Your task to perform on an android device: Search for pizza restaurants on Maps Image 0: 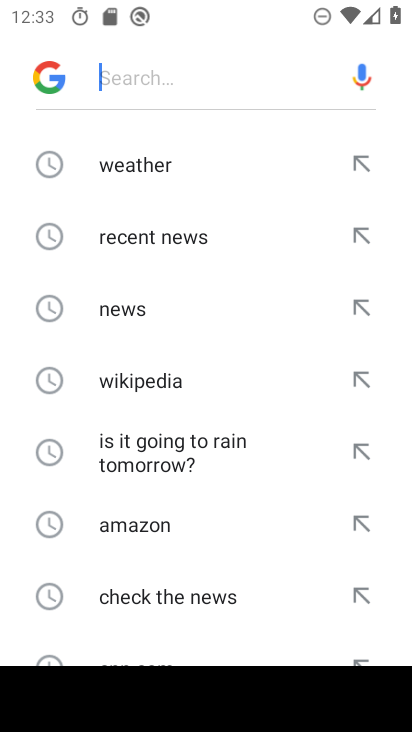
Step 0: press home button
Your task to perform on an android device: Search for pizza restaurants on Maps Image 1: 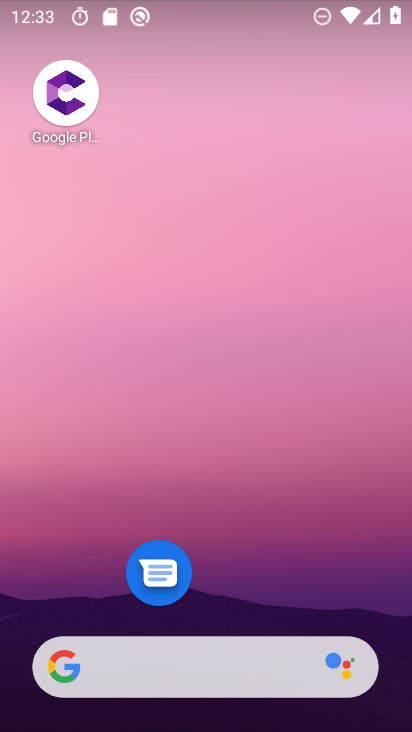
Step 1: drag from (211, 609) to (271, 80)
Your task to perform on an android device: Search for pizza restaurants on Maps Image 2: 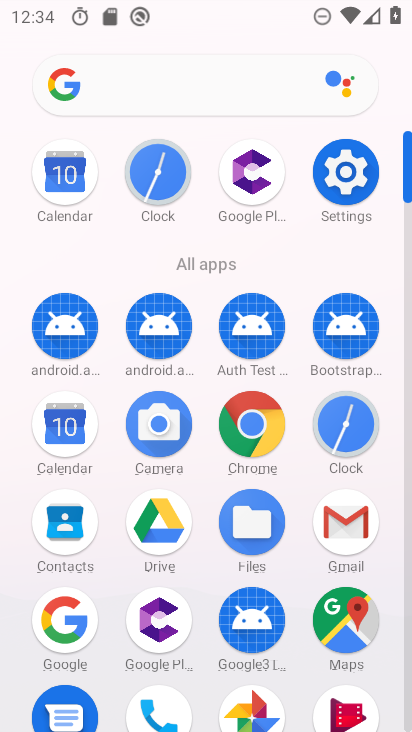
Step 2: click (354, 610)
Your task to perform on an android device: Search for pizza restaurants on Maps Image 3: 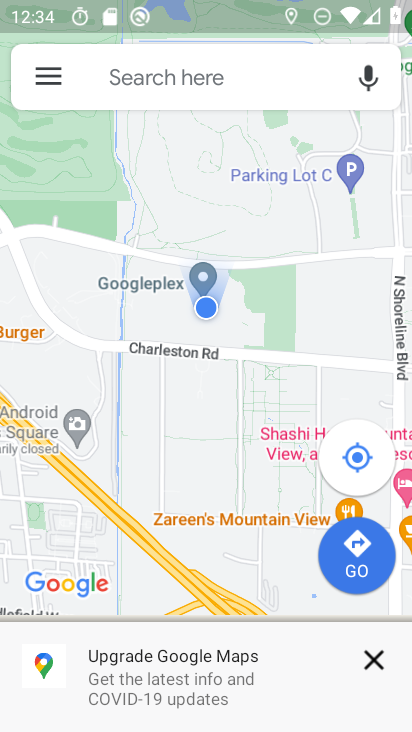
Step 3: click (209, 81)
Your task to perform on an android device: Search for pizza restaurants on Maps Image 4: 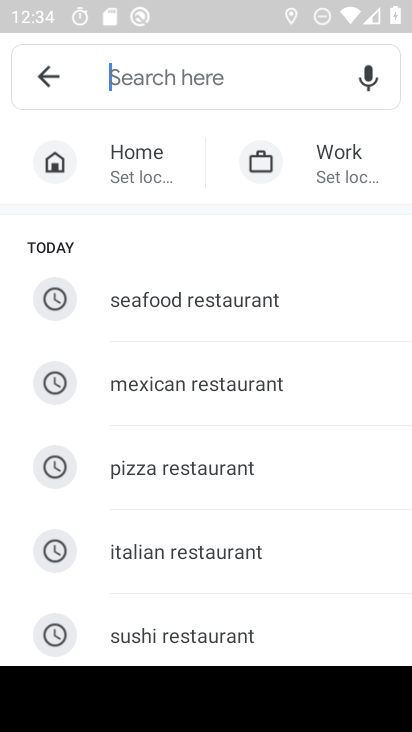
Step 4: type "Pizza restaurants"
Your task to perform on an android device: Search for pizza restaurants on Maps Image 5: 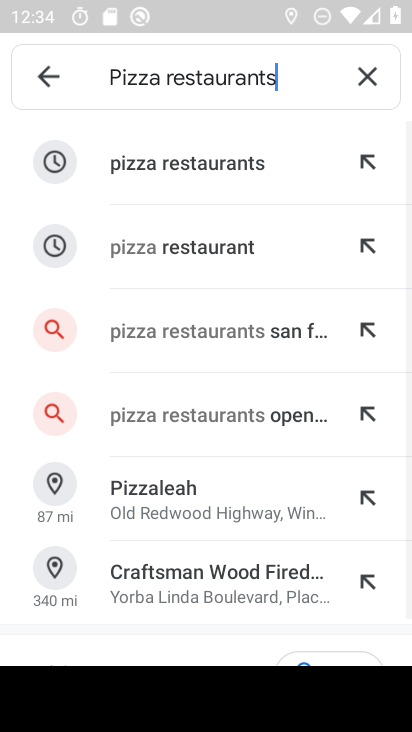
Step 5: click (161, 161)
Your task to perform on an android device: Search for pizza restaurants on Maps Image 6: 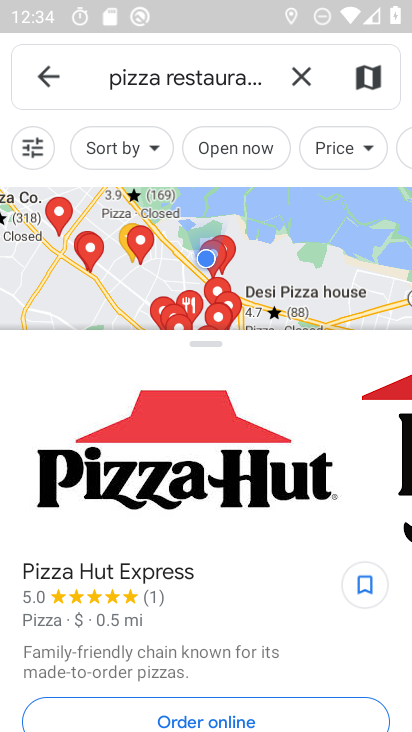
Step 6: task complete